Your task to perform on an android device: Go to settings Image 0: 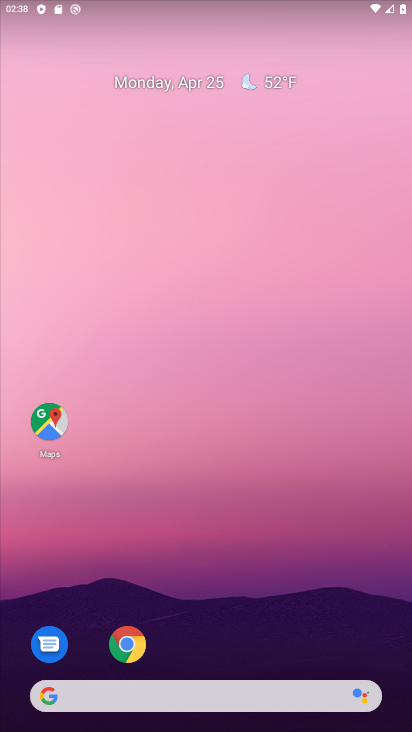
Step 0: drag from (224, 635) to (241, 71)
Your task to perform on an android device: Go to settings Image 1: 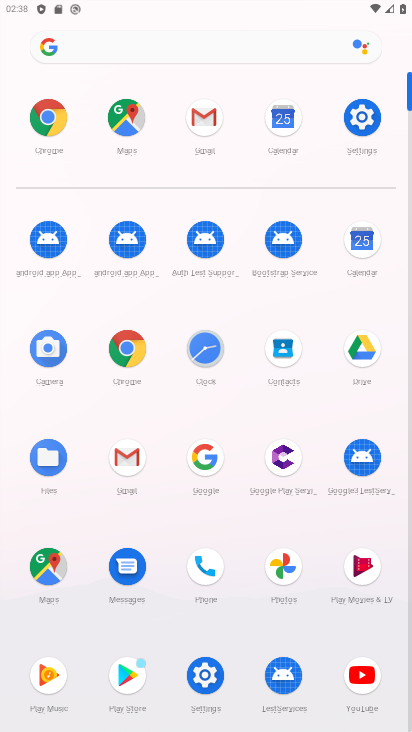
Step 1: click (374, 131)
Your task to perform on an android device: Go to settings Image 2: 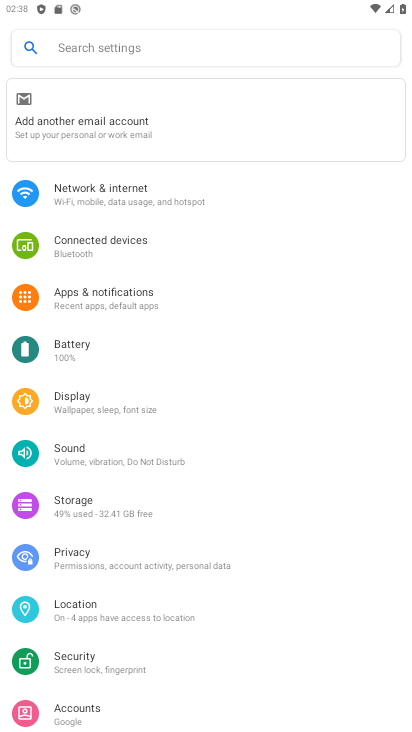
Step 2: task complete